Your task to perform on an android device: Search for pizza restaurants on Maps Image 0: 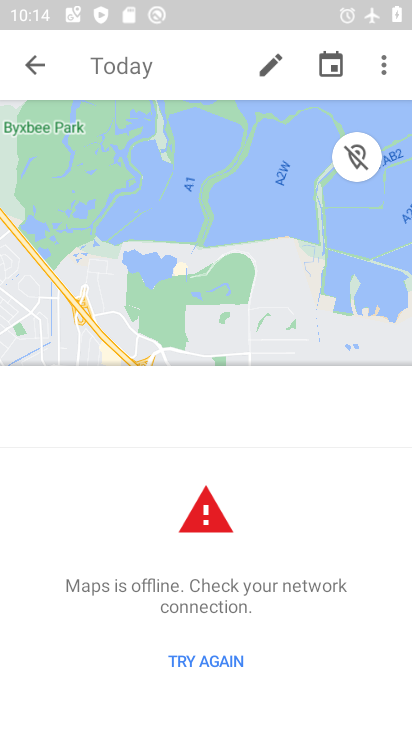
Step 0: press home button
Your task to perform on an android device: Search for pizza restaurants on Maps Image 1: 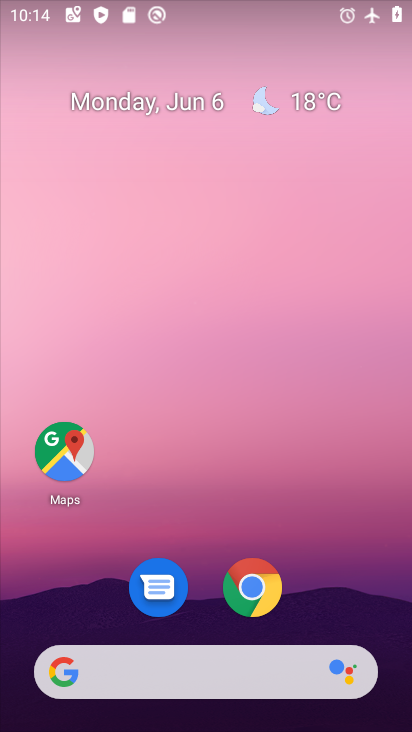
Step 1: click (52, 440)
Your task to perform on an android device: Search for pizza restaurants on Maps Image 2: 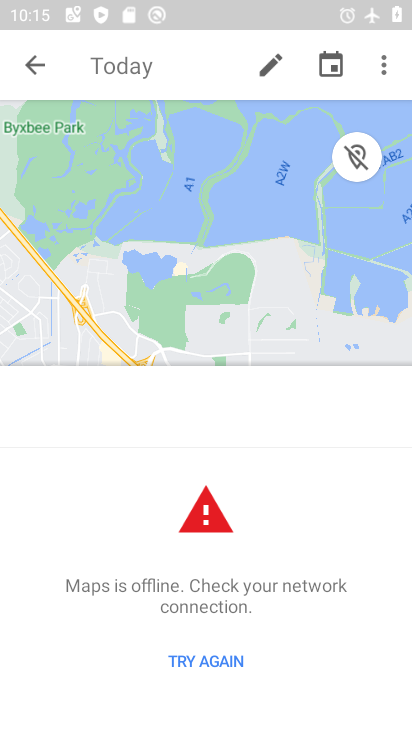
Step 2: click (34, 70)
Your task to perform on an android device: Search for pizza restaurants on Maps Image 3: 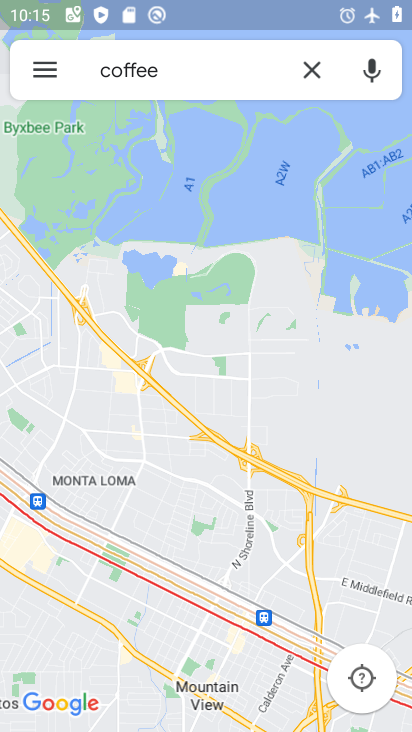
Step 3: click (242, 60)
Your task to perform on an android device: Search for pizza restaurants on Maps Image 4: 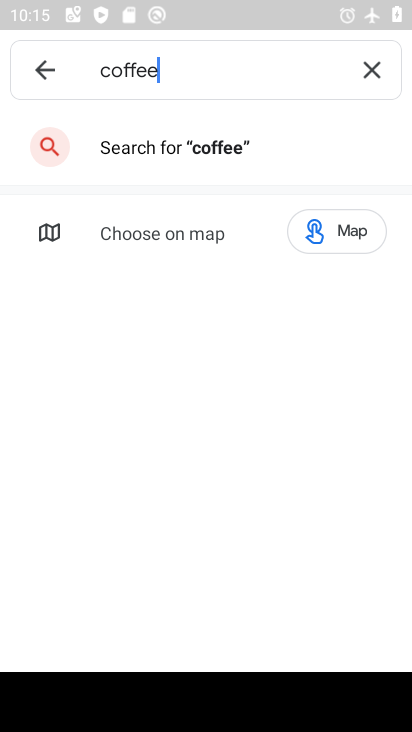
Step 4: click (370, 72)
Your task to perform on an android device: Search for pizza restaurants on Maps Image 5: 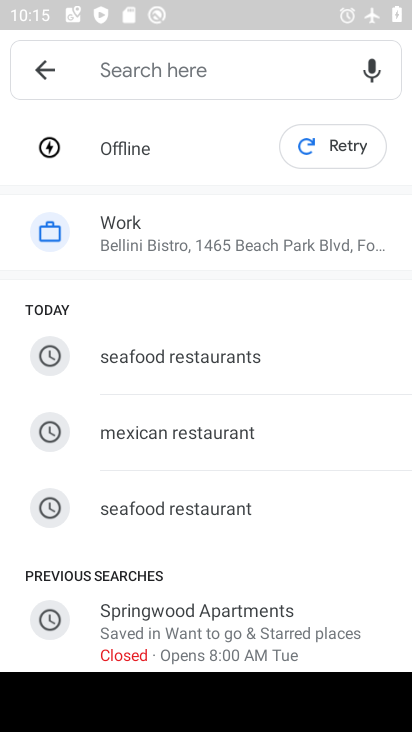
Step 5: type "pizza restaurants"
Your task to perform on an android device: Search for pizza restaurants on Maps Image 6: 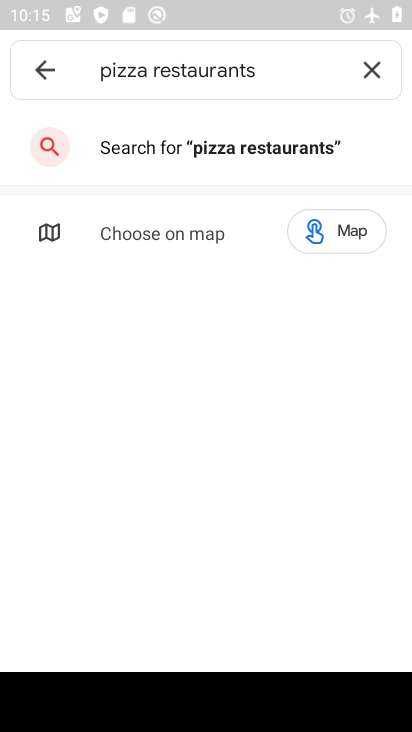
Step 6: click (282, 137)
Your task to perform on an android device: Search for pizza restaurants on Maps Image 7: 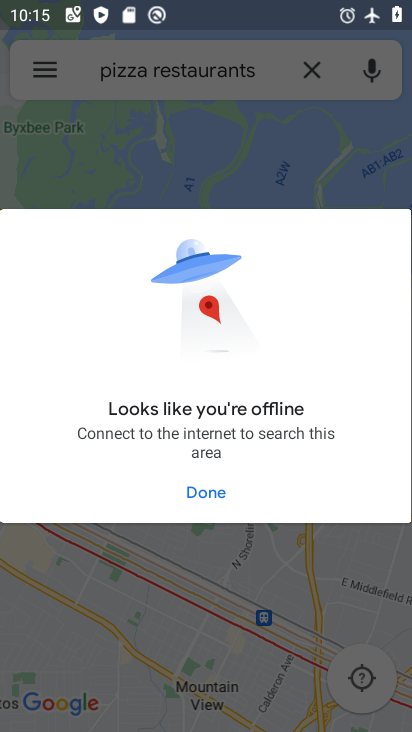
Step 7: task complete